Your task to perform on an android device: turn off translation in the chrome app Image 0: 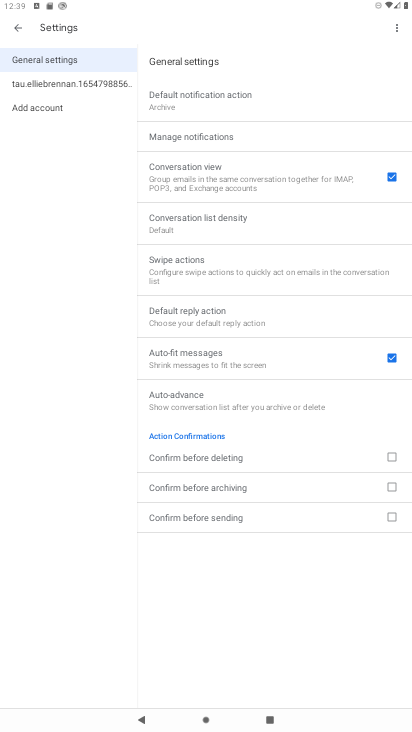
Step 0: press home button
Your task to perform on an android device: turn off translation in the chrome app Image 1: 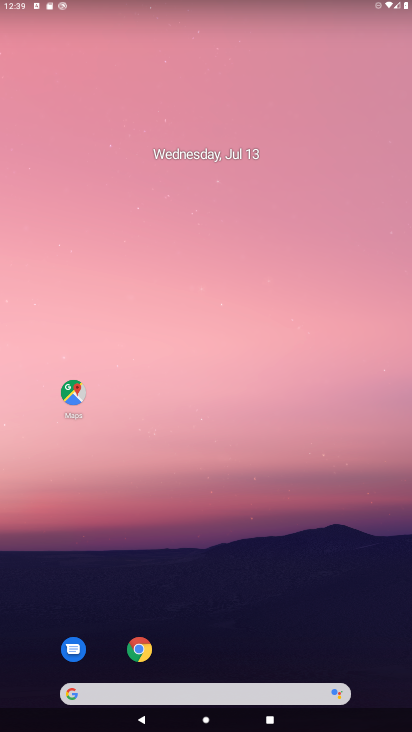
Step 1: click (139, 649)
Your task to perform on an android device: turn off translation in the chrome app Image 2: 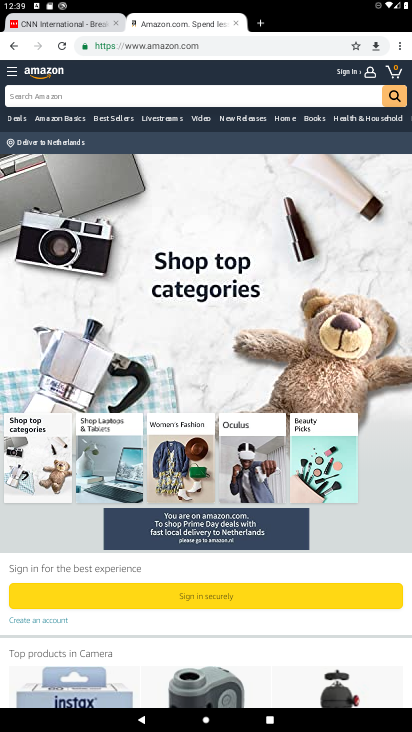
Step 2: click (399, 48)
Your task to perform on an android device: turn off translation in the chrome app Image 3: 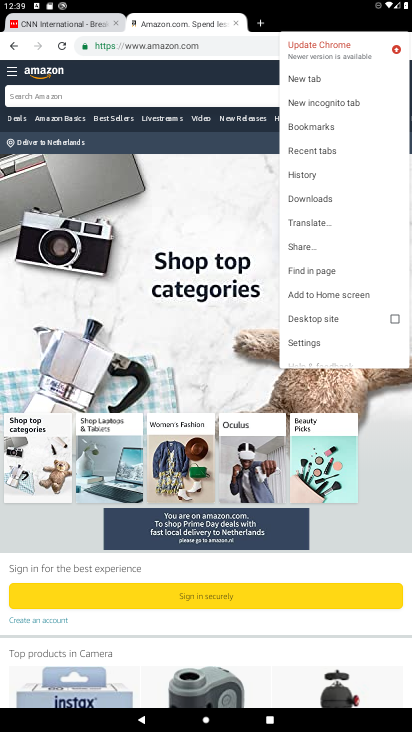
Step 3: click (308, 342)
Your task to perform on an android device: turn off translation in the chrome app Image 4: 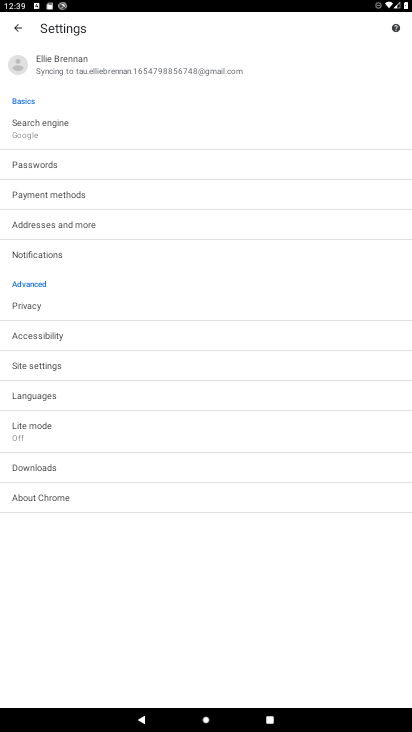
Step 4: click (45, 393)
Your task to perform on an android device: turn off translation in the chrome app Image 5: 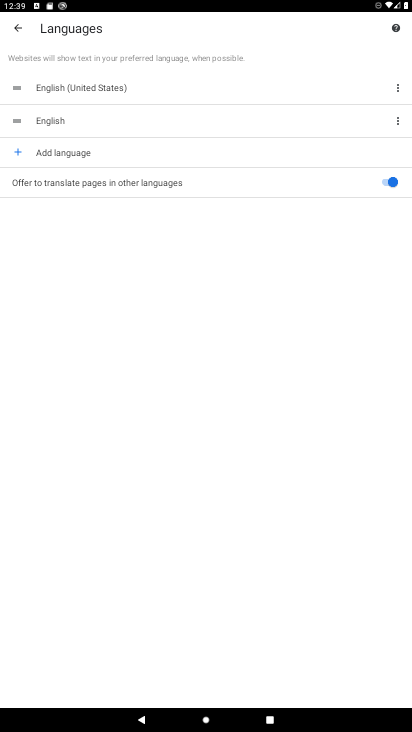
Step 5: click (383, 180)
Your task to perform on an android device: turn off translation in the chrome app Image 6: 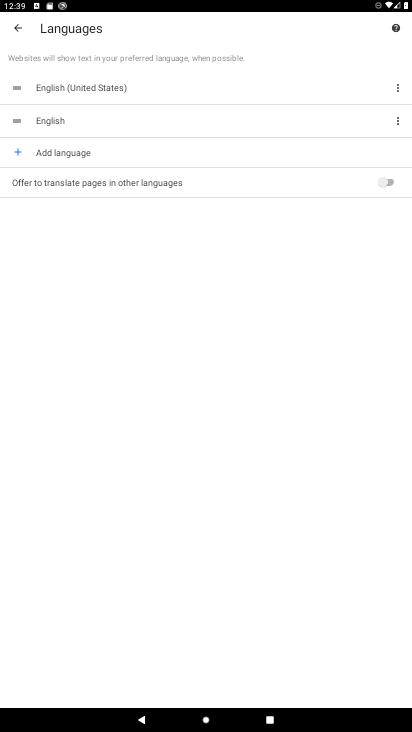
Step 6: task complete